Your task to perform on an android device: toggle wifi Image 0: 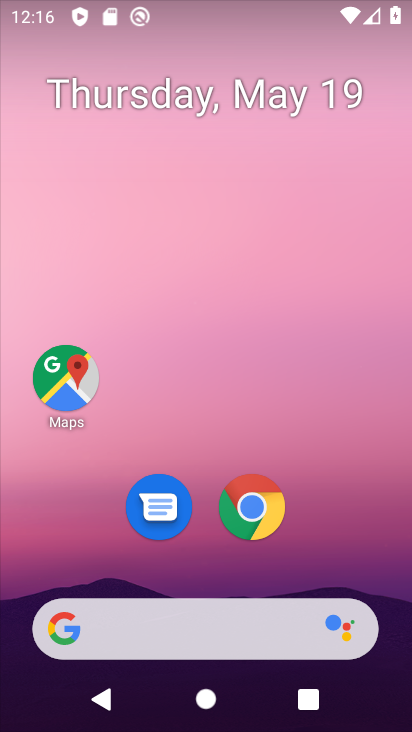
Step 0: drag from (195, 567) to (270, 105)
Your task to perform on an android device: toggle wifi Image 1: 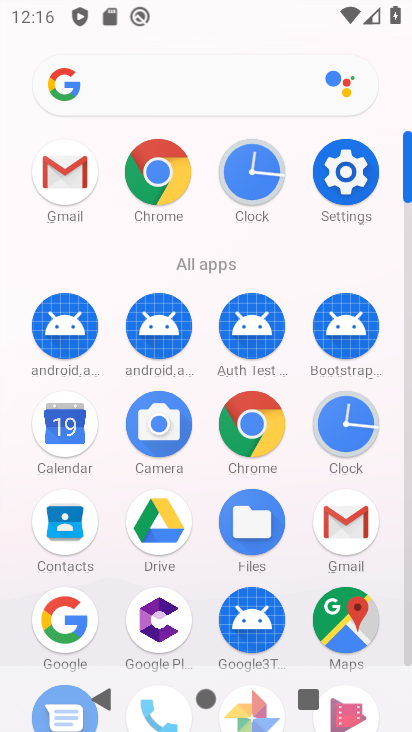
Step 1: click (350, 197)
Your task to perform on an android device: toggle wifi Image 2: 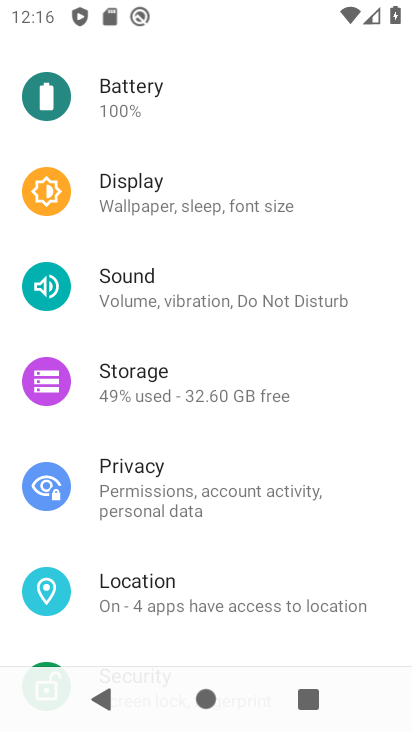
Step 2: drag from (314, 192) to (287, 539)
Your task to perform on an android device: toggle wifi Image 3: 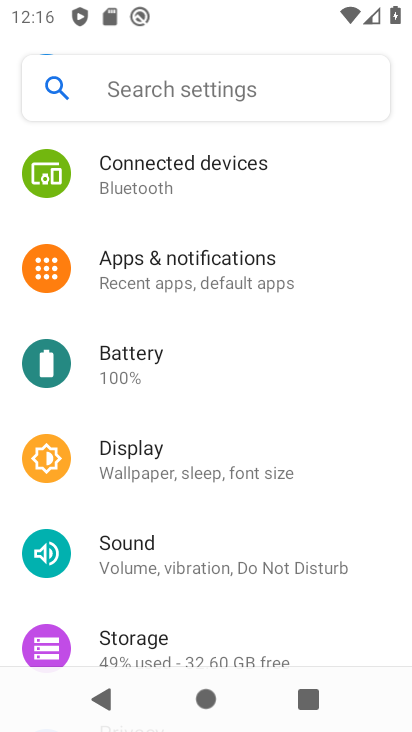
Step 3: drag from (237, 305) to (212, 617)
Your task to perform on an android device: toggle wifi Image 4: 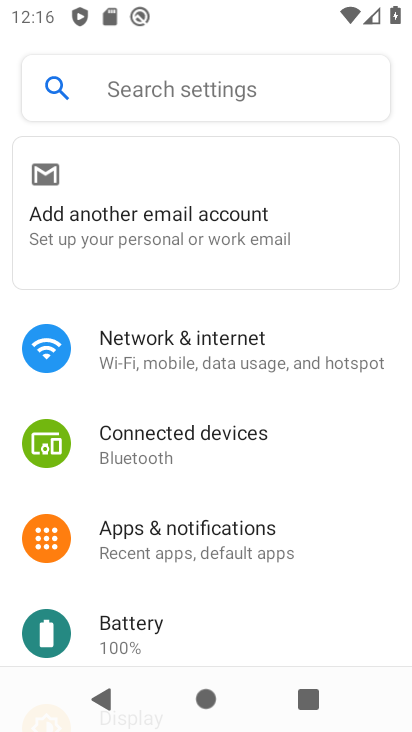
Step 4: click (203, 355)
Your task to perform on an android device: toggle wifi Image 5: 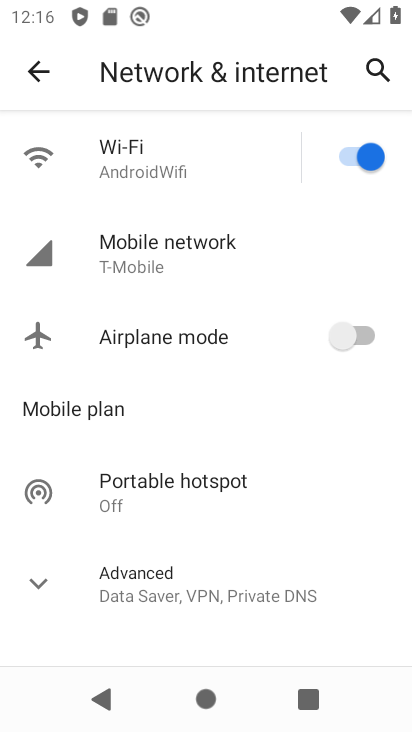
Step 5: click (340, 161)
Your task to perform on an android device: toggle wifi Image 6: 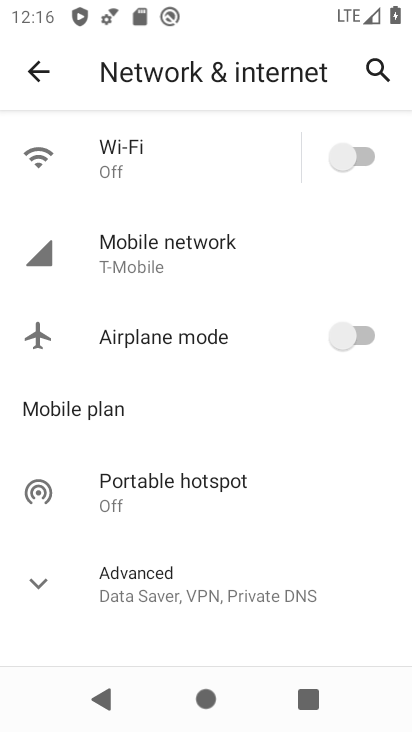
Step 6: task complete